Your task to perform on an android device: Go to ESPN.com Image 0: 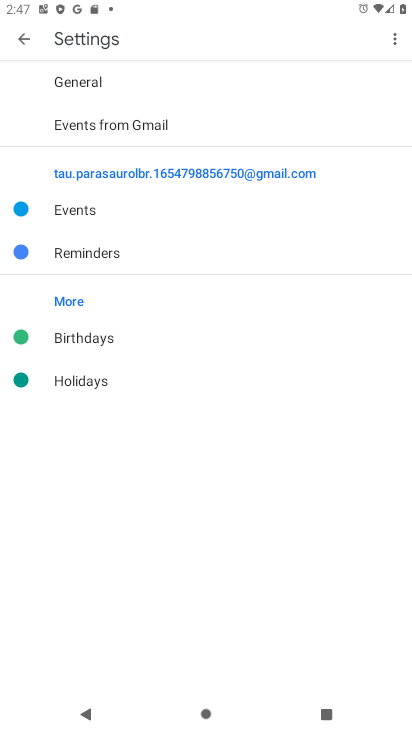
Step 0: press home button
Your task to perform on an android device: Go to ESPN.com Image 1: 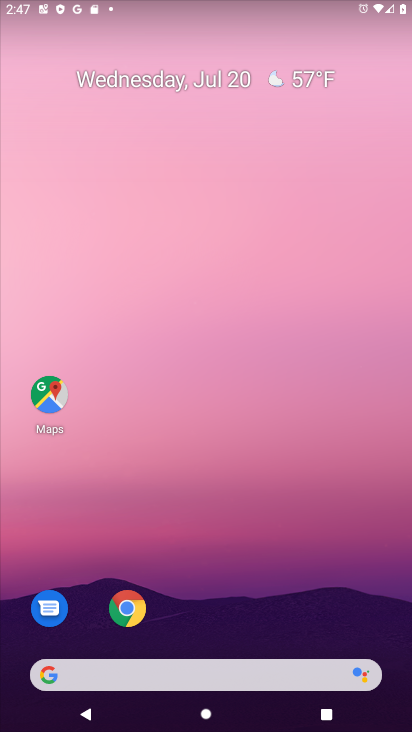
Step 1: drag from (172, 495) to (152, 274)
Your task to perform on an android device: Go to ESPN.com Image 2: 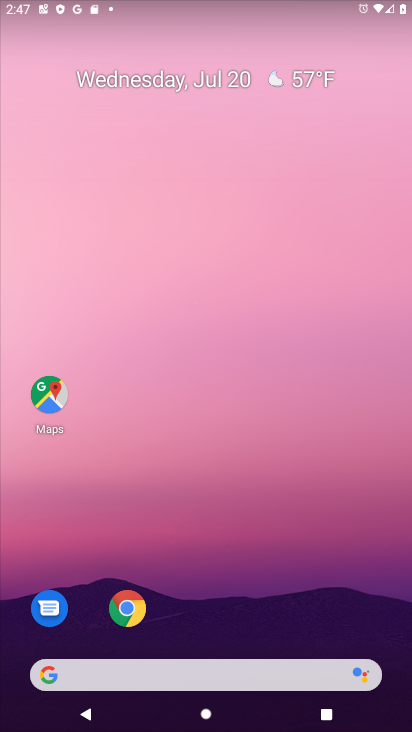
Step 2: drag from (190, 428) to (236, 104)
Your task to perform on an android device: Go to ESPN.com Image 3: 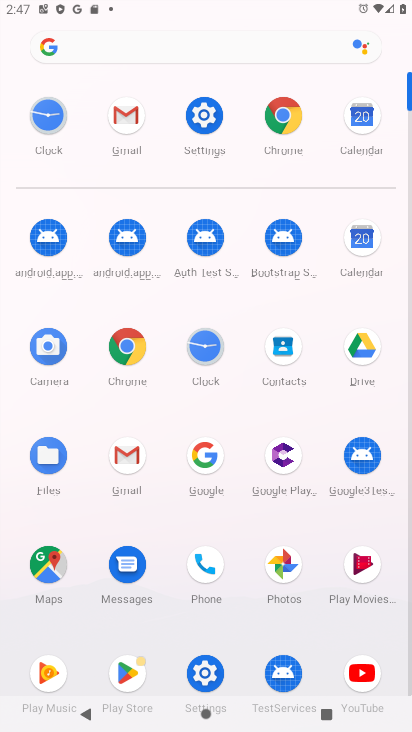
Step 3: click (289, 139)
Your task to perform on an android device: Go to ESPN.com Image 4: 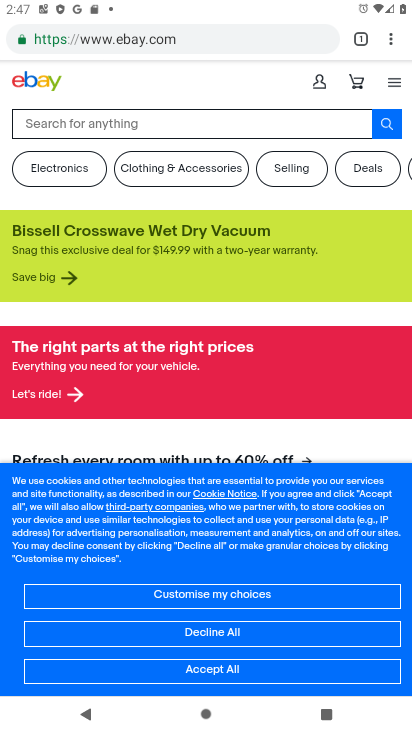
Step 4: click (148, 38)
Your task to perform on an android device: Go to ESPN.com Image 5: 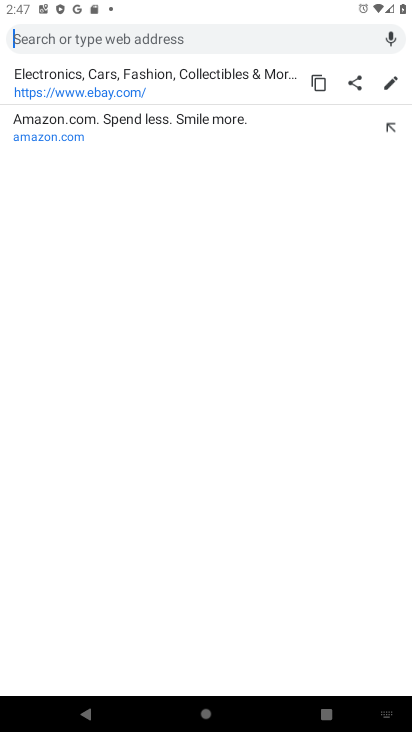
Step 5: type "www.espn.com"
Your task to perform on an android device: Go to ESPN.com Image 6: 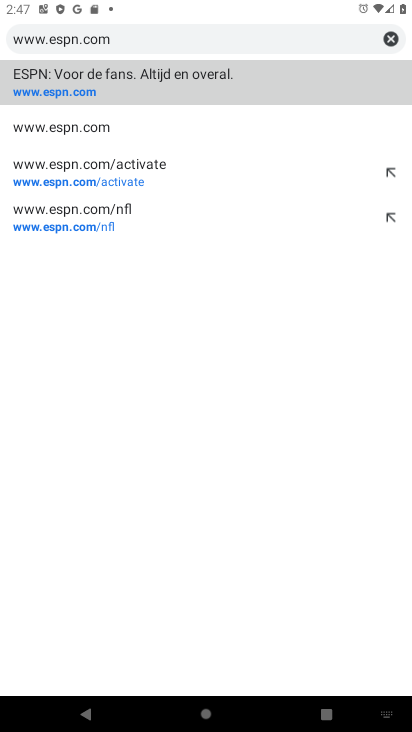
Step 6: click (72, 93)
Your task to perform on an android device: Go to ESPN.com Image 7: 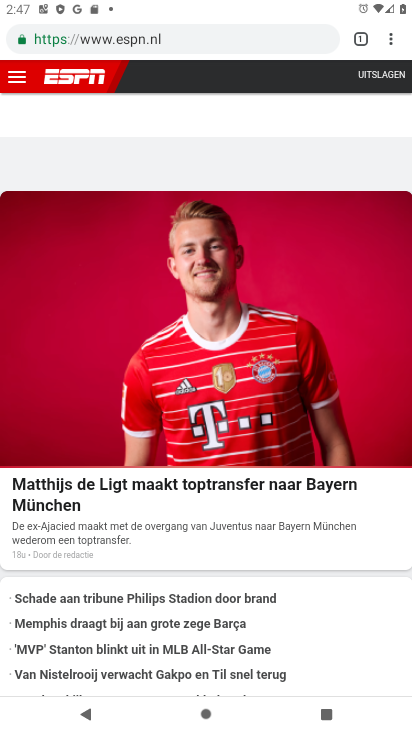
Step 7: task complete